Your task to perform on an android device: Go to ESPN.com Image 0: 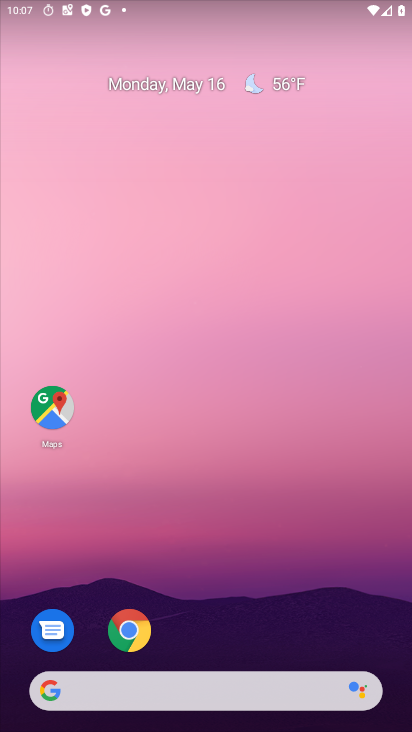
Step 0: click (120, 642)
Your task to perform on an android device: Go to ESPN.com Image 1: 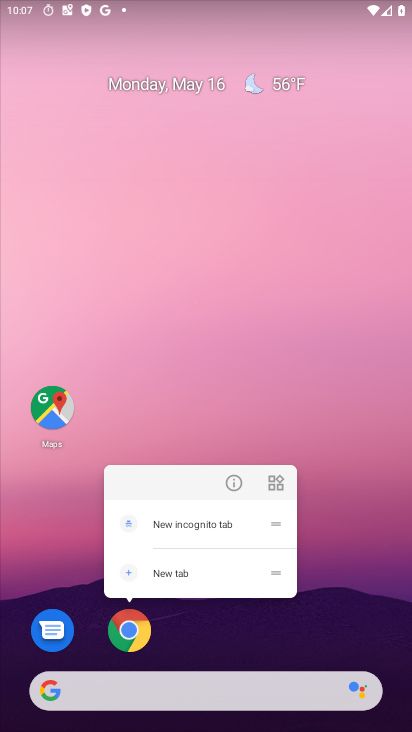
Step 1: click (120, 642)
Your task to perform on an android device: Go to ESPN.com Image 2: 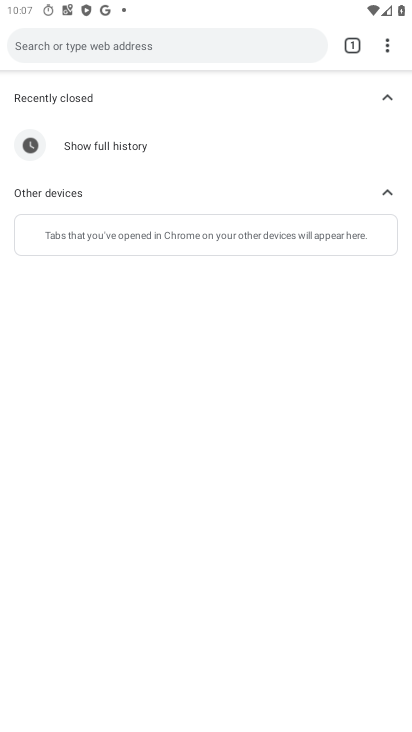
Step 2: click (105, 42)
Your task to perform on an android device: Go to ESPN.com Image 3: 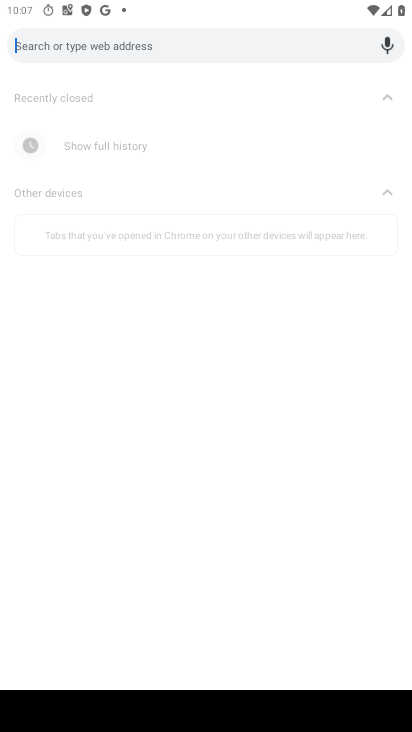
Step 3: type "ESPN.com"
Your task to perform on an android device: Go to ESPN.com Image 4: 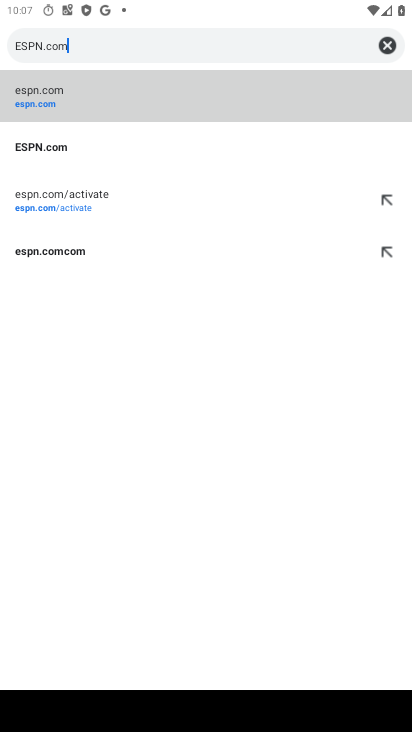
Step 4: click (59, 162)
Your task to perform on an android device: Go to ESPN.com Image 5: 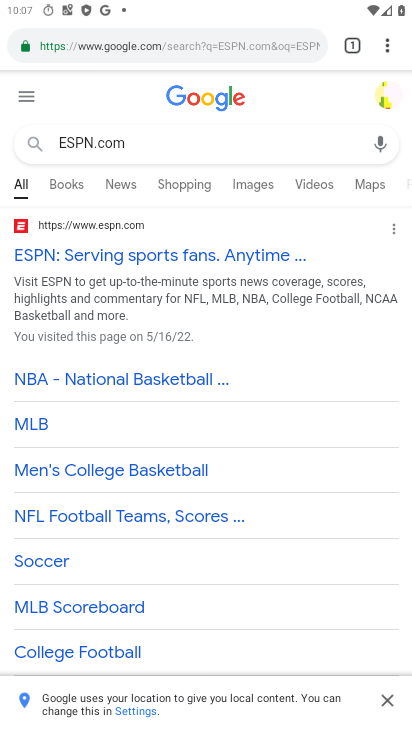
Step 5: click (82, 258)
Your task to perform on an android device: Go to ESPN.com Image 6: 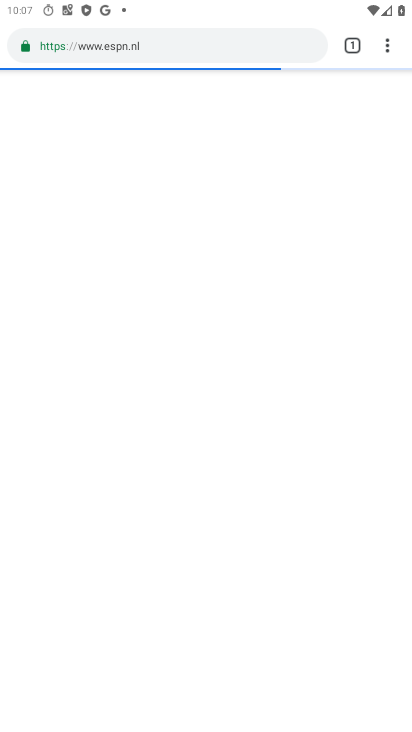
Step 6: task complete